Your task to perform on an android device: Turn on the flashlight Image 0: 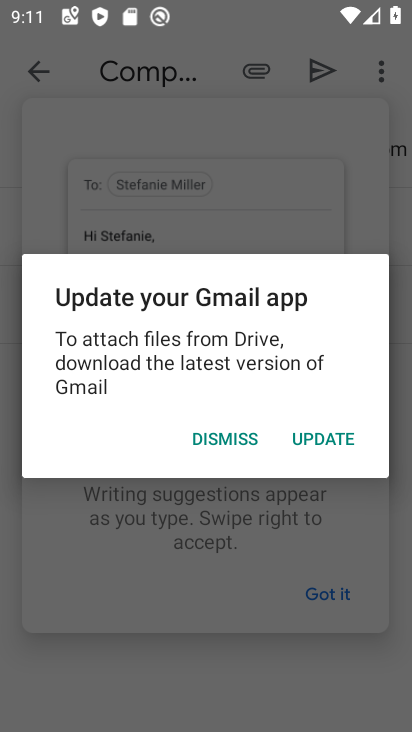
Step 0: press home button
Your task to perform on an android device: Turn on the flashlight Image 1: 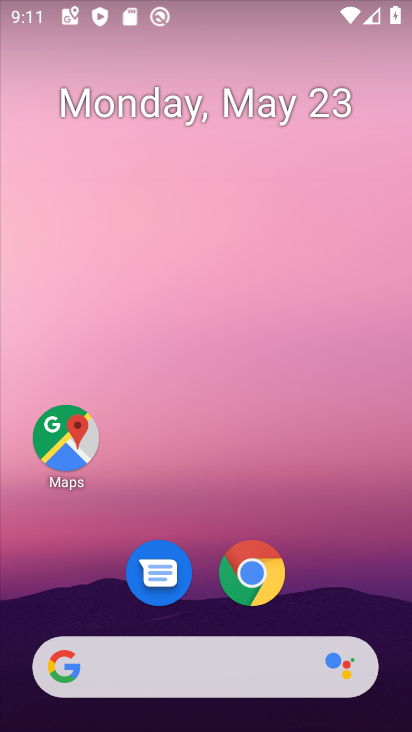
Step 1: drag from (233, 2) to (214, 331)
Your task to perform on an android device: Turn on the flashlight Image 2: 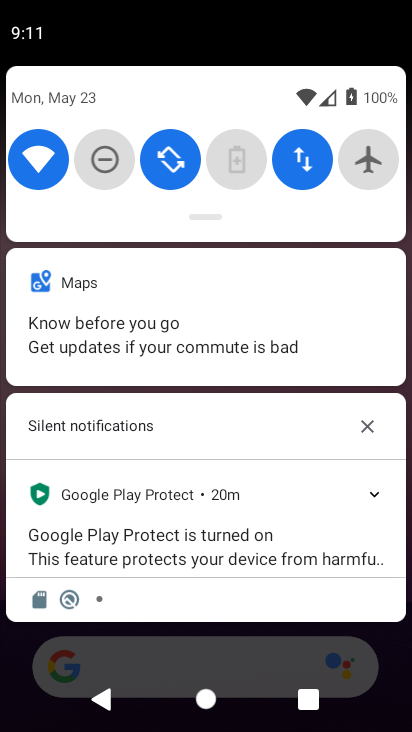
Step 2: drag from (207, 84) to (208, 357)
Your task to perform on an android device: Turn on the flashlight Image 3: 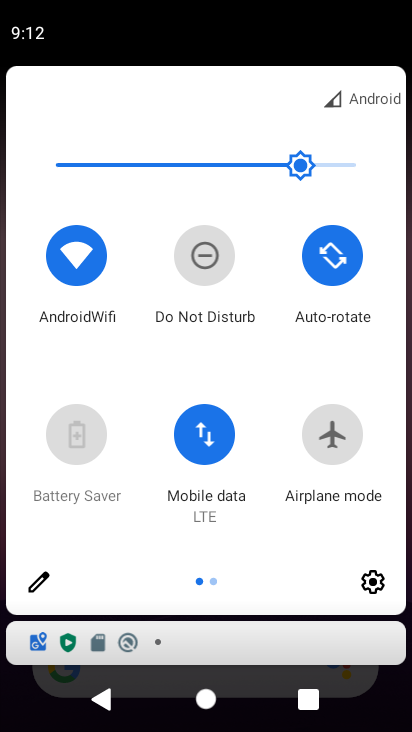
Step 3: click (36, 602)
Your task to perform on an android device: Turn on the flashlight Image 4: 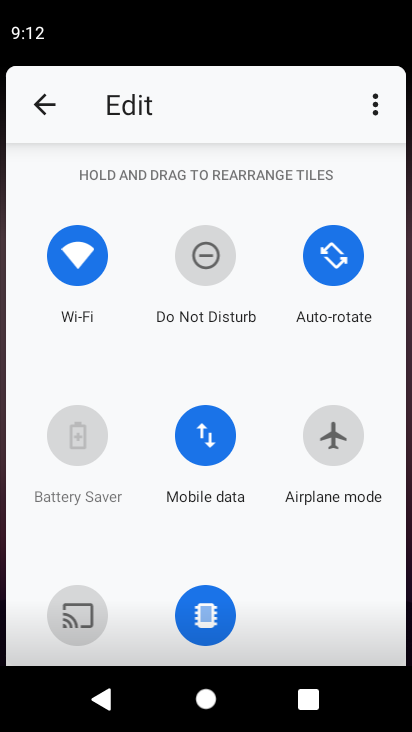
Step 4: task complete